Your task to perform on an android device: read, delete, or share a saved page in the chrome app Image 0: 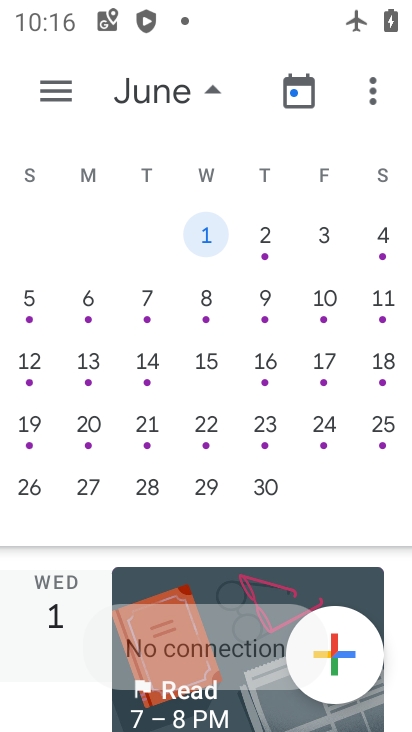
Step 0: press home button
Your task to perform on an android device: read, delete, or share a saved page in the chrome app Image 1: 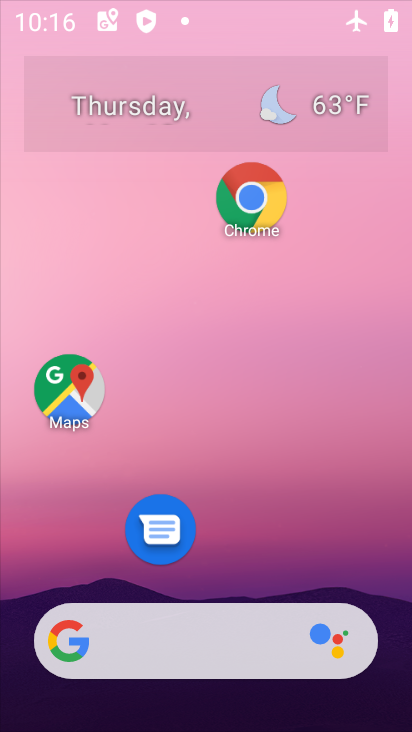
Step 1: drag from (241, 570) to (261, 186)
Your task to perform on an android device: read, delete, or share a saved page in the chrome app Image 2: 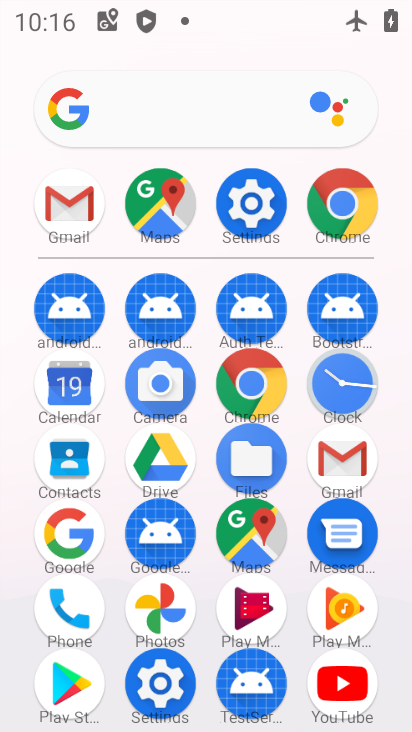
Step 2: click (265, 396)
Your task to perform on an android device: read, delete, or share a saved page in the chrome app Image 3: 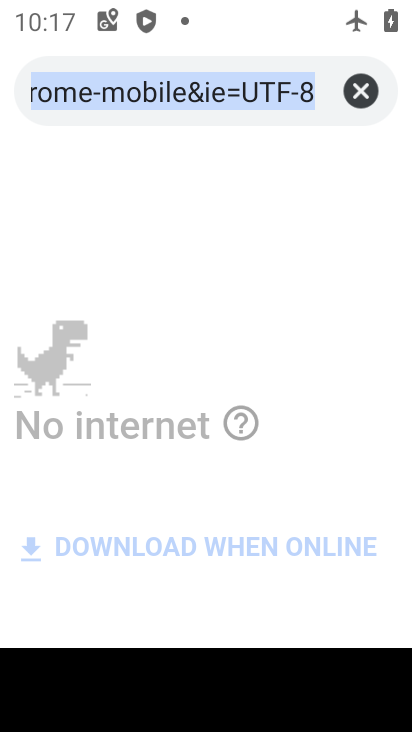
Step 3: click (349, 335)
Your task to perform on an android device: read, delete, or share a saved page in the chrome app Image 4: 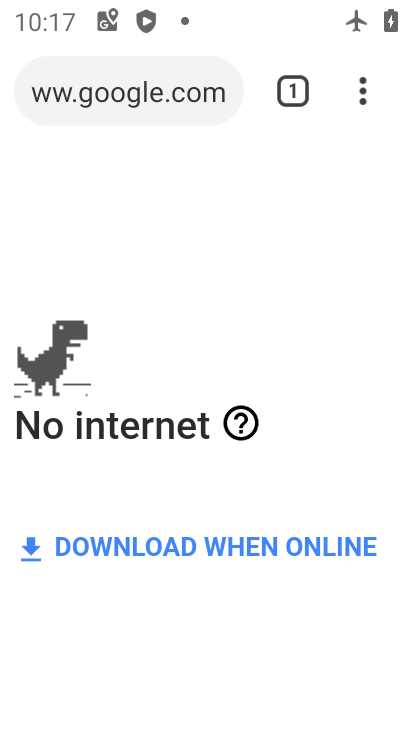
Step 4: click (357, 87)
Your task to perform on an android device: read, delete, or share a saved page in the chrome app Image 5: 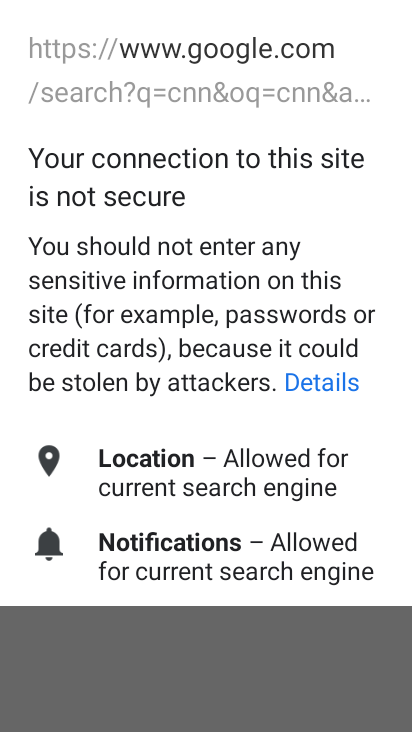
Step 5: click (312, 677)
Your task to perform on an android device: read, delete, or share a saved page in the chrome app Image 6: 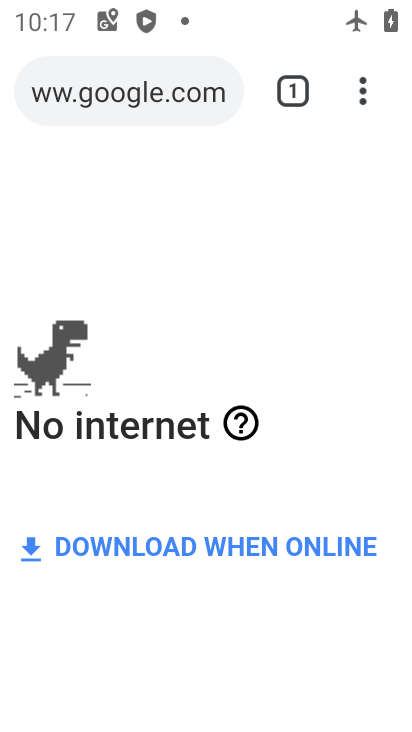
Step 6: click (363, 111)
Your task to perform on an android device: read, delete, or share a saved page in the chrome app Image 7: 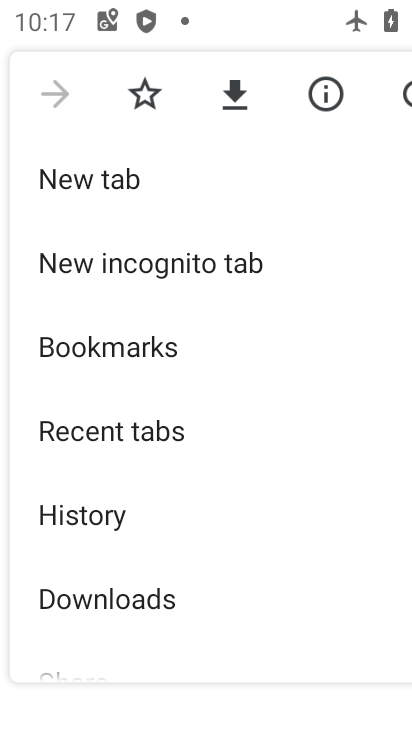
Step 7: click (171, 592)
Your task to perform on an android device: read, delete, or share a saved page in the chrome app Image 8: 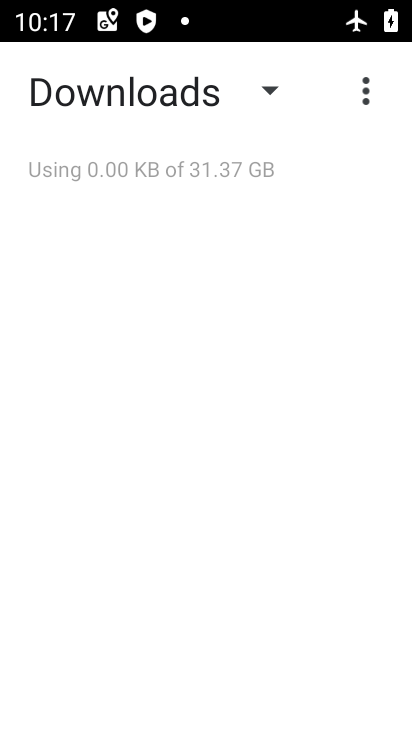
Step 8: click (270, 89)
Your task to perform on an android device: read, delete, or share a saved page in the chrome app Image 9: 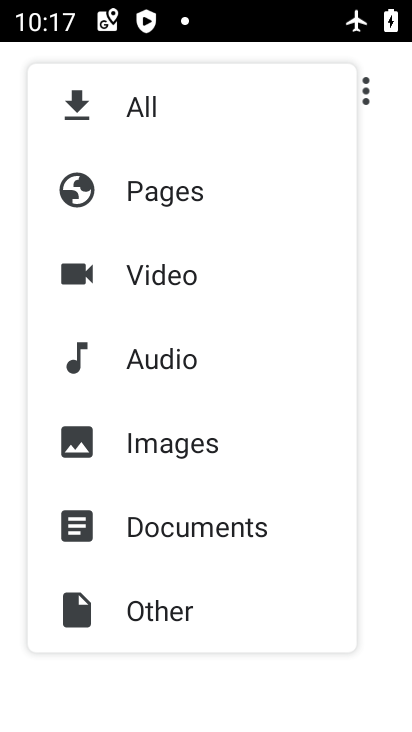
Step 9: click (220, 189)
Your task to perform on an android device: read, delete, or share a saved page in the chrome app Image 10: 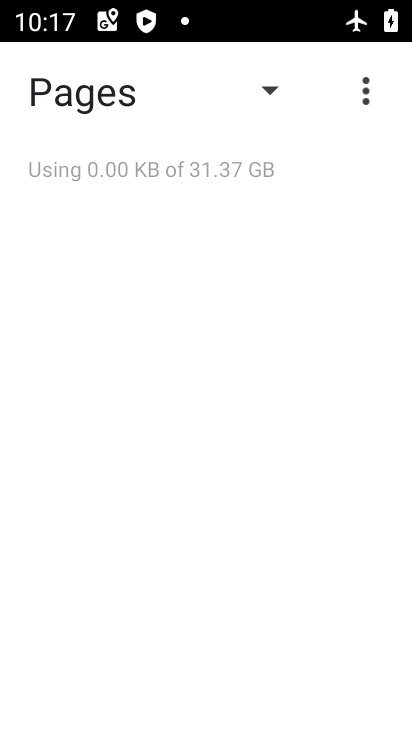
Step 10: task complete